Your task to perform on an android device: Is it going to rain this weekend? Image 0: 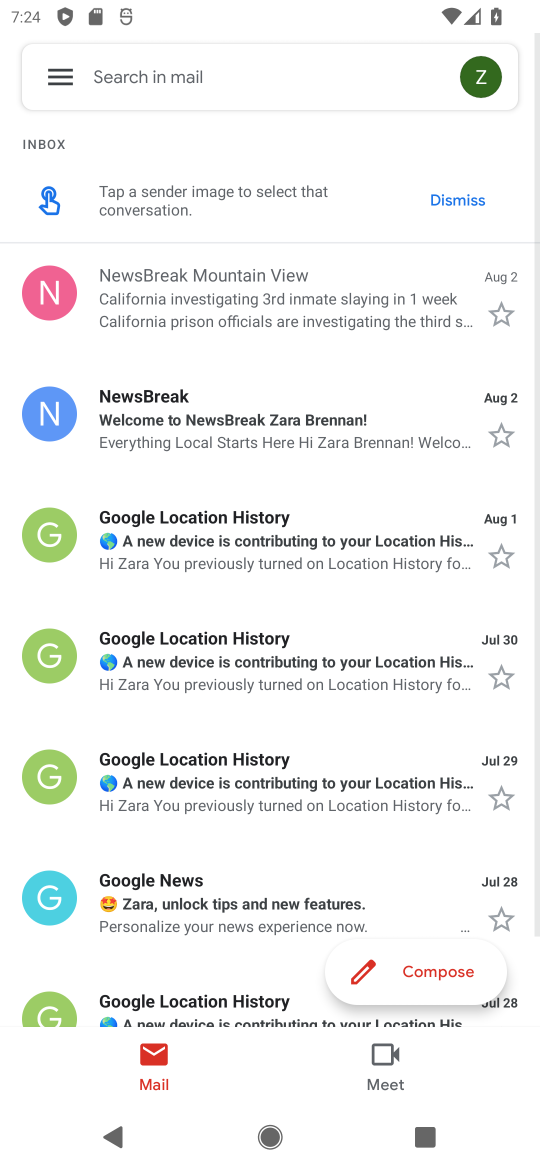
Step 0: press home button
Your task to perform on an android device: Is it going to rain this weekend? Image 1: 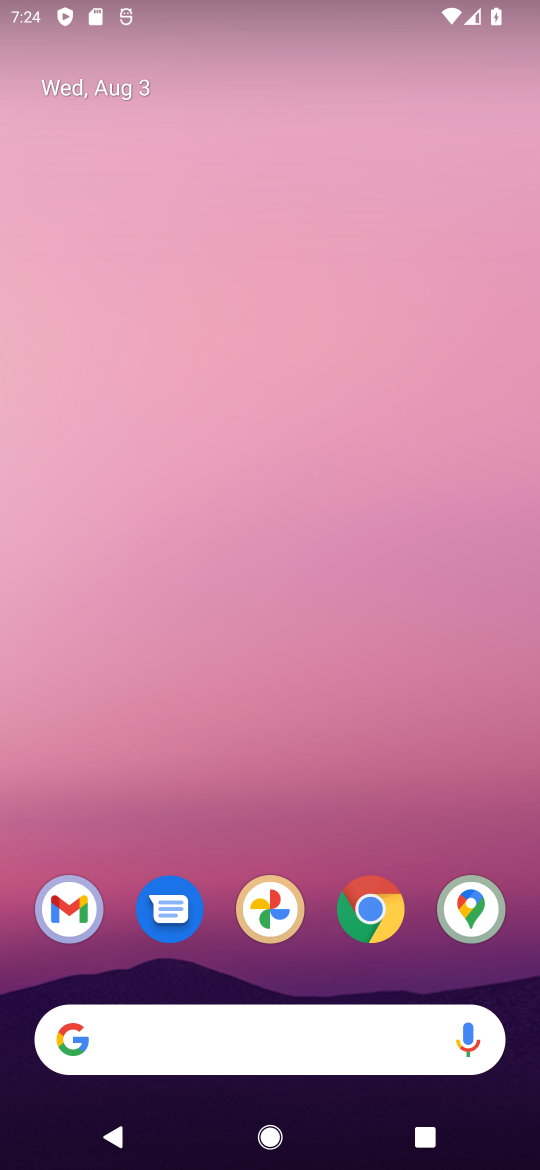
Step 1: click (298, 1037)
Your task to perform on an android device: Is it going to rain this weekend? Image 2: 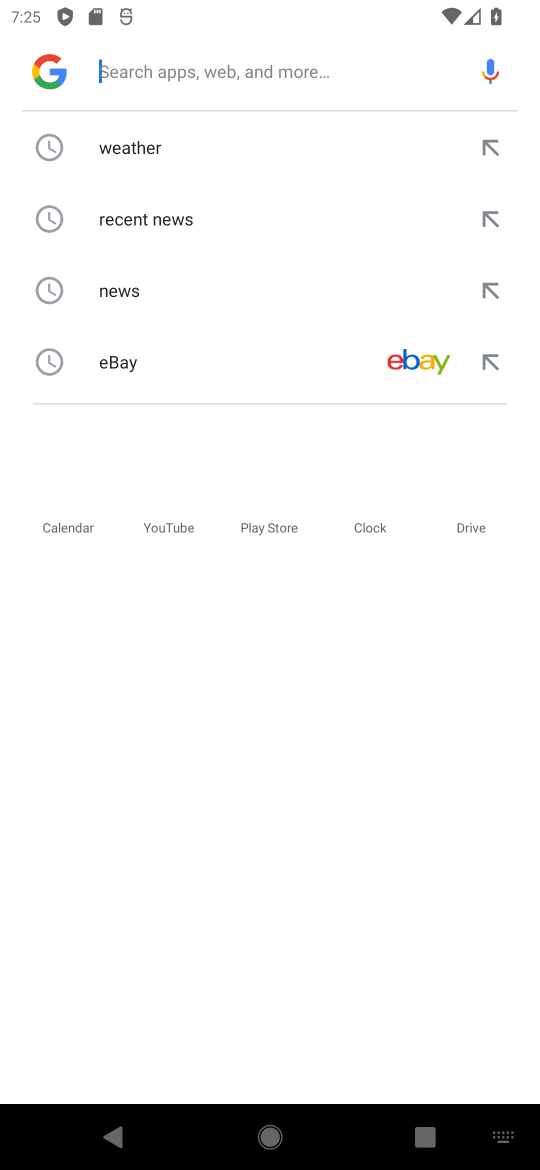
Step 2: click (170, 147)
Your task to perform on an android device: Is it going to rain this weekend? Image 3: 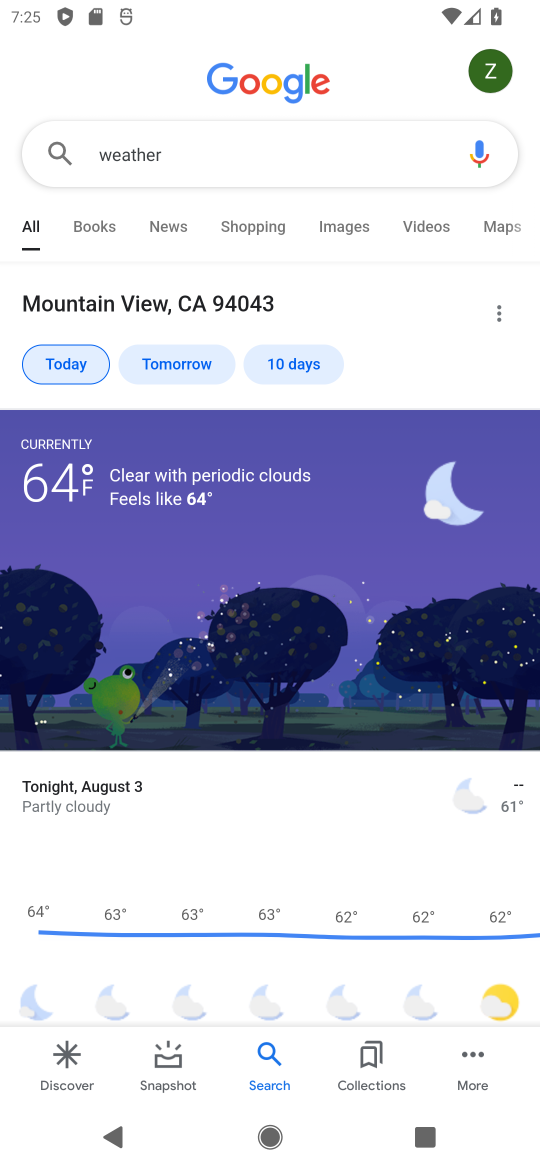
Step 3: click (314, 372)
Your task to perform on an android device: Is it going to rain this weekend? Image 4: 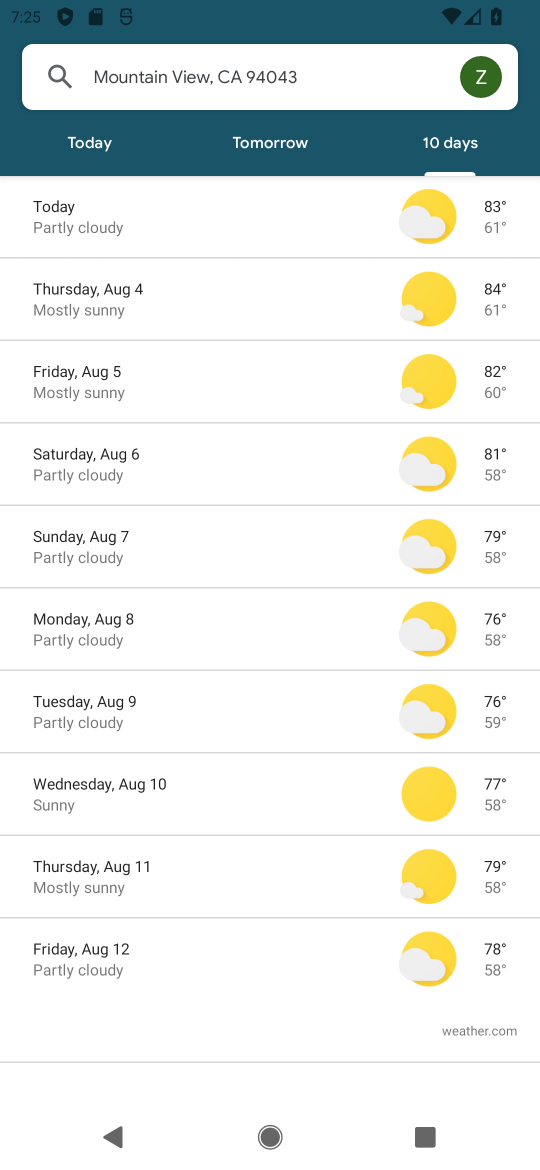
Step 4: click (173, 485)
Your task to perform on an android device: Is it going to rain this weekend? Image 5: 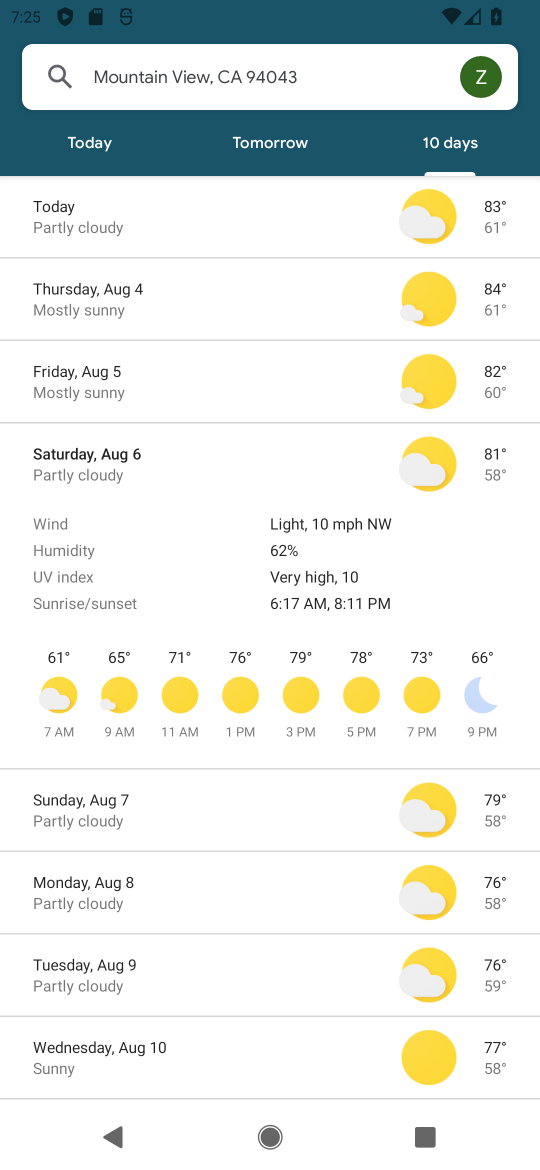
Step 5: task complete